Your task to perform on an android device: set the timer Image 0: 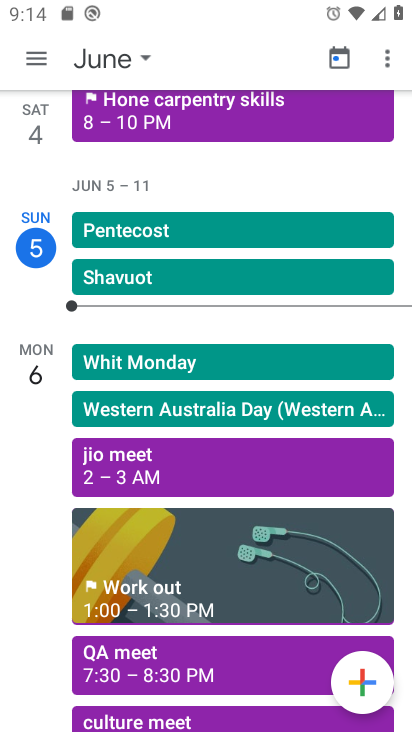
Step 0: press home button
Your task to perform on an android device: set the timer Image 1: 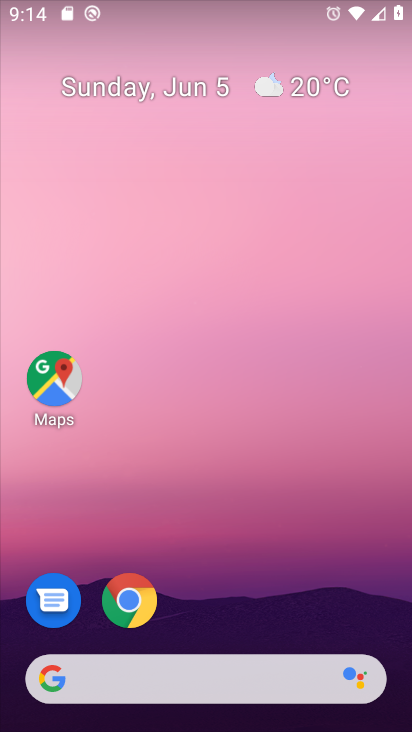
Step 1: drag from (207, 576) to (145, 34)
Your task to perform on an android device: set the timer Image 2: 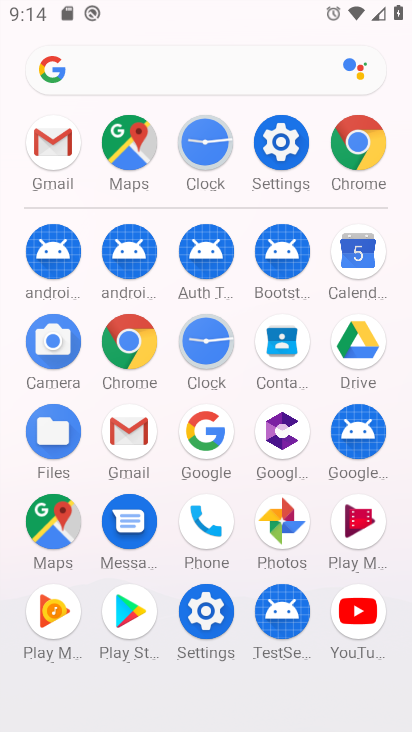
Step 2: click (221, 332)
Your task to perform on an android device: set the timer Image 3: 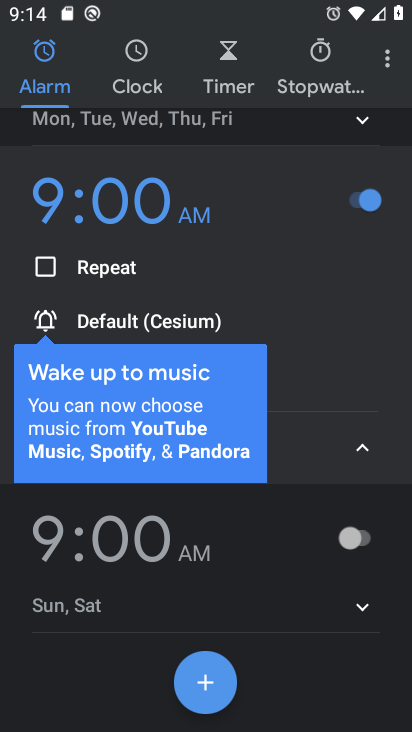
Step 3: click (228, 74)
Your task to perform on an android device: set the timer Image 4: 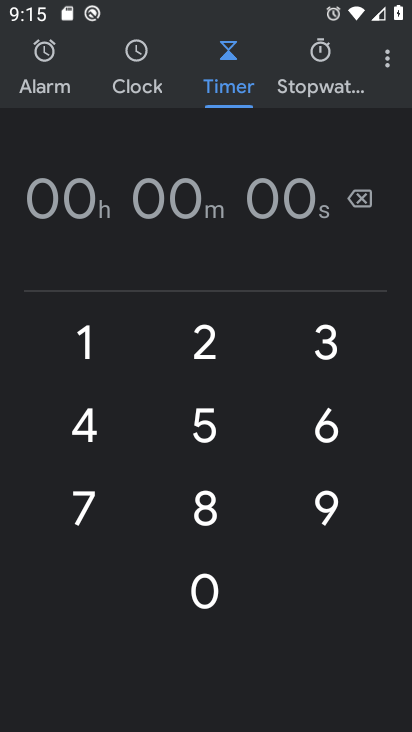
Step 4: task complete